Your task to perform on an android device: Open battery settings Image 0: 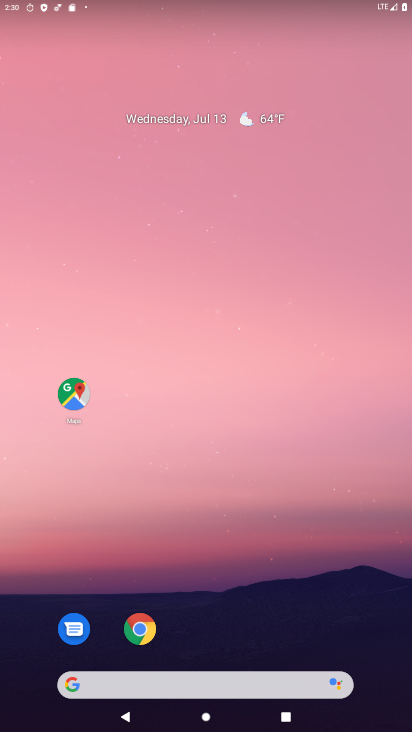
Step 0: drag from (207, 571) to (296, 7)
Your task to perform on an android device: Open battery settings Image 1: 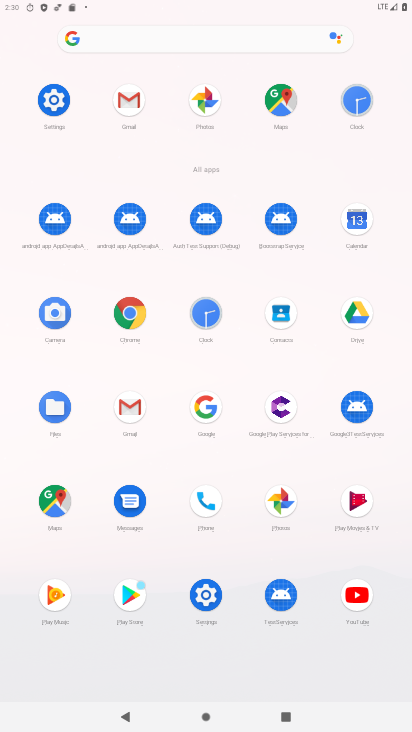
Step 1: click (59, 97)
Your task to perform on an android device: Open battery settings Image 2: 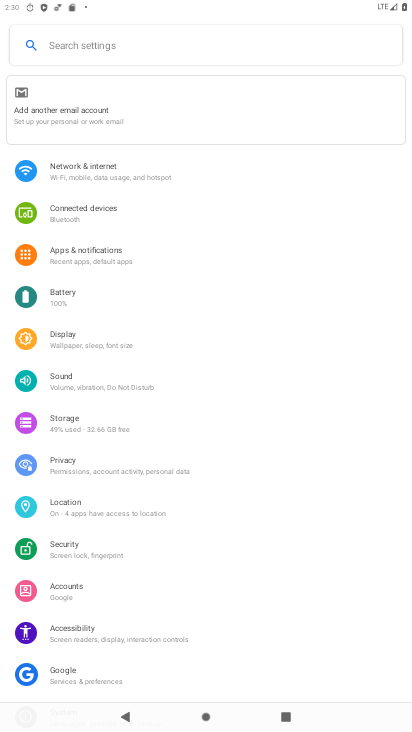
Step 2: click (87, 301)
Your task to perform on an android device: Open battery settings Image 3: 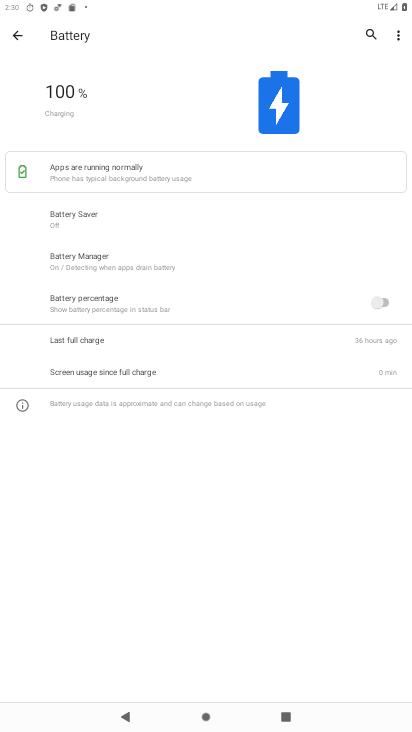
Step 3: task complete